Your task to perform on an android device: turn vacation reply on in the gmail app Image 0: 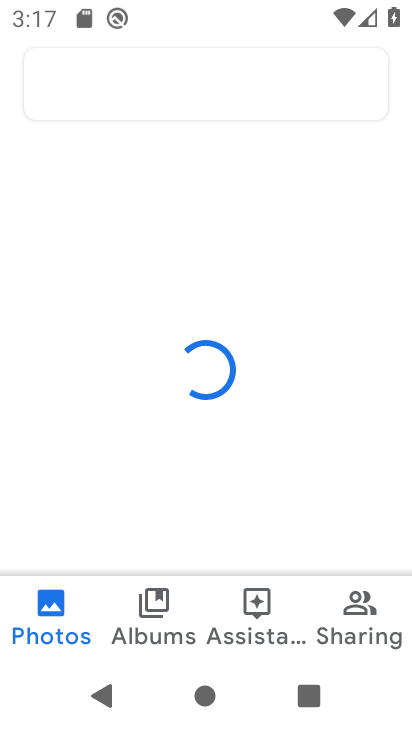
Step 0: press home button
Your task to perform on an android device: turn vacation reply on in the gmail app Image 1: 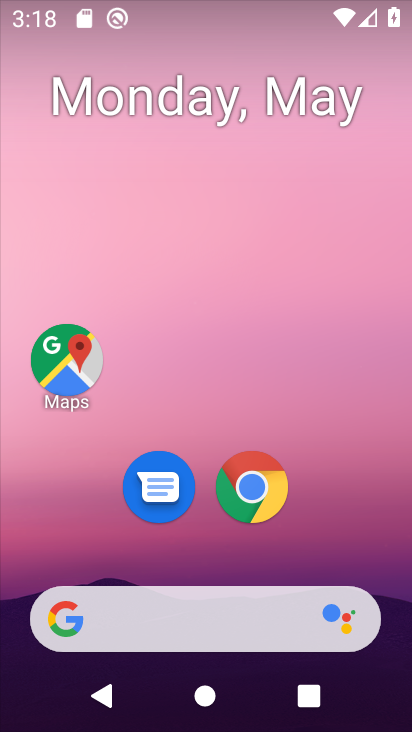
Step 1: drag from (85, 565) to (184, 70)
Your task to perform on an android device: turn vacation reply on in the gmail app Image 2: 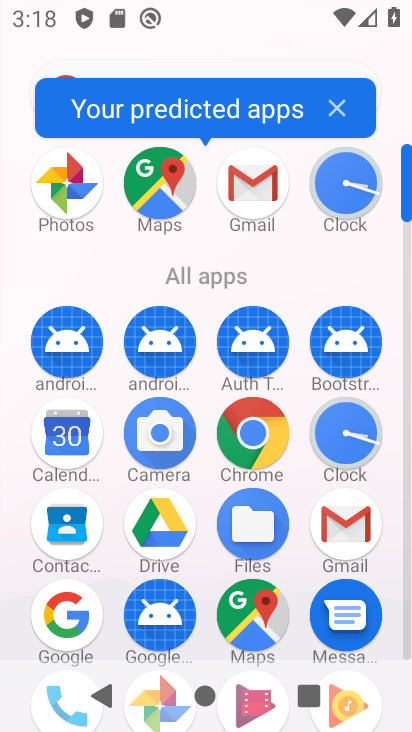
Step 2: click (337, 543)
Your task to perform on an android device: turn vacation reply on in the gmail app Image 3: 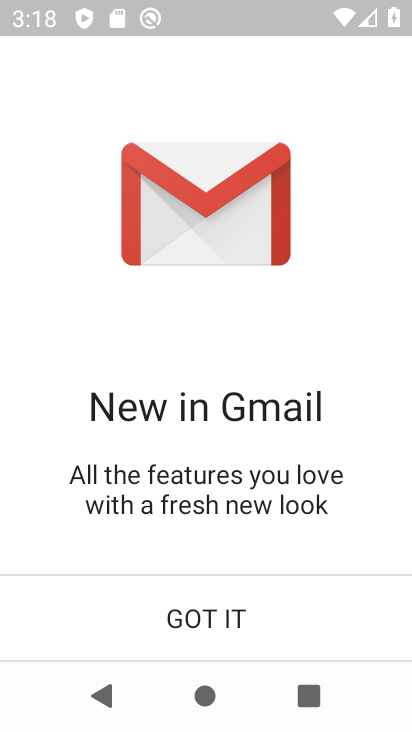
Step 3: click (253, 609)
Your task to perform on an android device: turn vacation reply on in the gmail app Image 4: 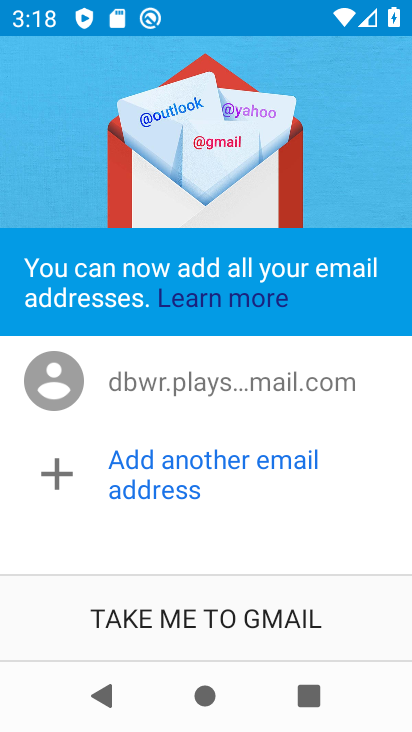
Step 4: click (312, 623)
Your task to perform on an android device: turn vacation reply on in the gmail app Image 5: 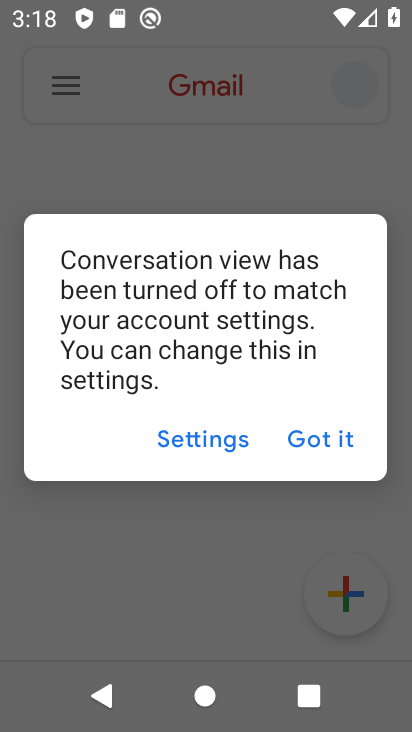
Step 5: click (339, 433)
Your task to perform on an android device: turn vacation reply on in the gmail app Image 6: 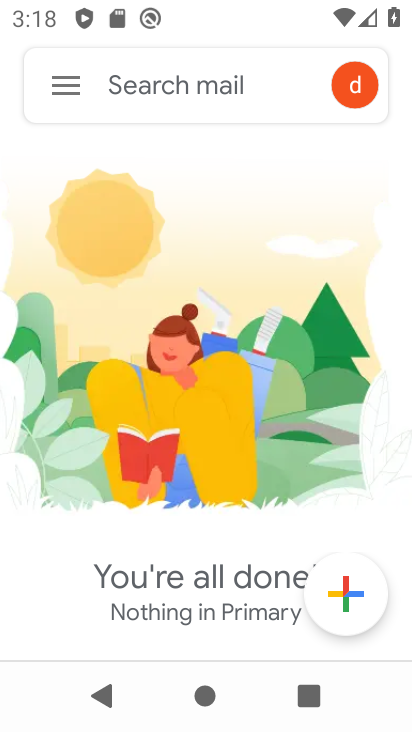
Step 6: click (87, 97)
Your task to perform on an android device: turn vacation reply on in the gmail app Image 7: 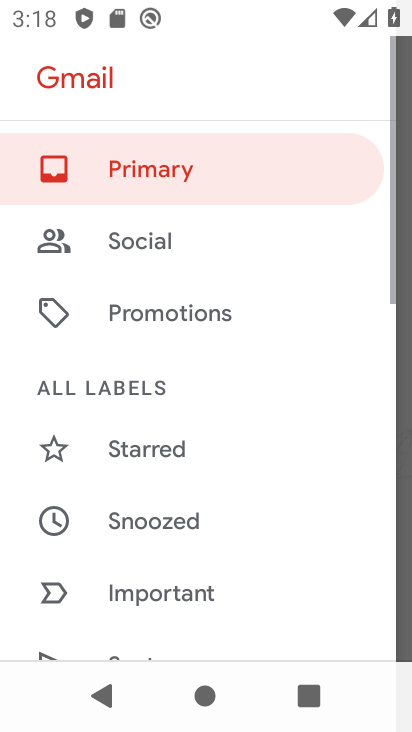
Step 7: drag from (158, 571) to (270, 76)
Your task to perform on an android device: turn vacation reply on in the gmail app Image 8: 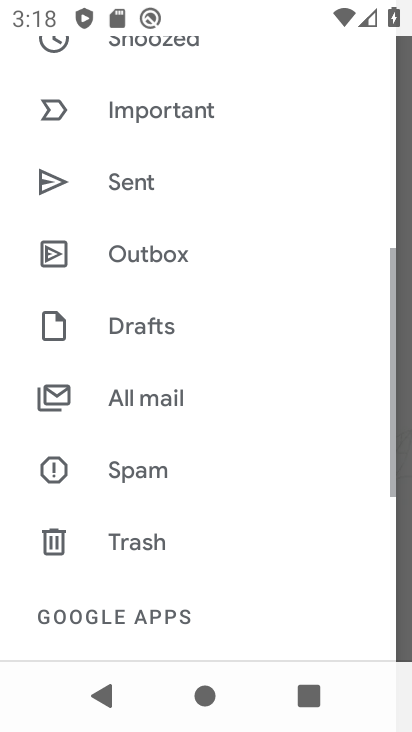
Step 8: drag from (236, 591) to (252, 303)
Your task to perform on an android device: turn vacation reply on in the gmail app Image 9: 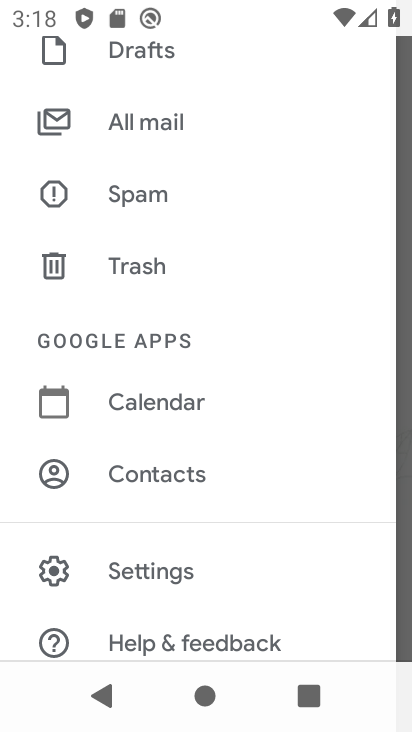
Step 9: click (220, 568)
Your task to perform on an android device: turn vacation reply on in the gmail app Image 10: 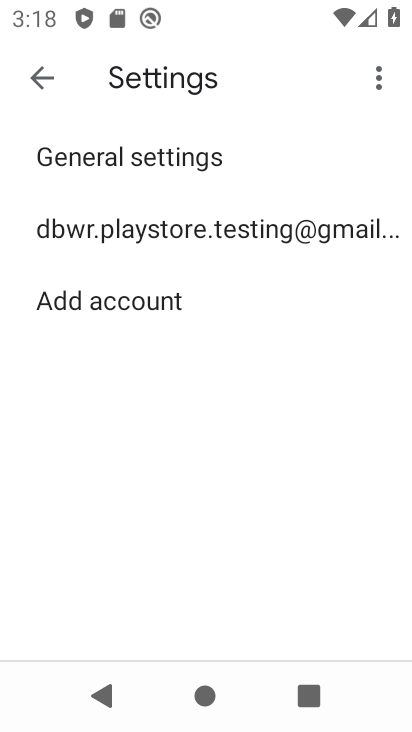
Step 10: click (272, 236)
Your task to perform on an android device: turn vacation reply on in the gmail app Image 11: 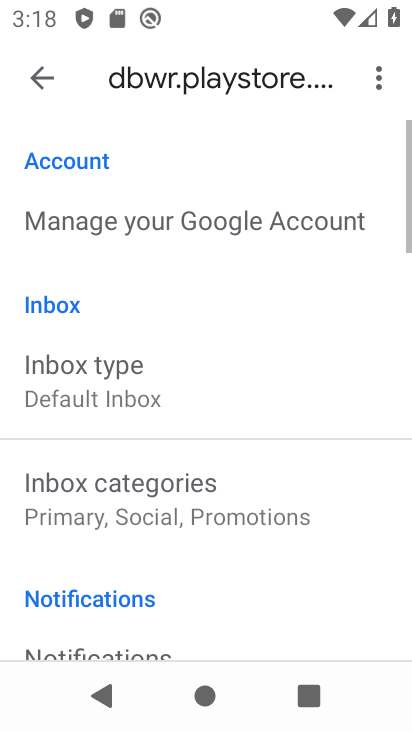
Step 11: drag from (165, 563) to (252, 120)
Your task to perform on an android device: turn vacation reply on in the gmail app Image 12: 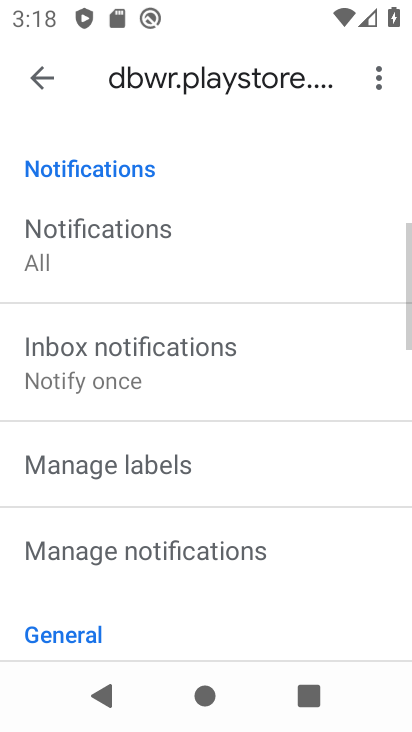
Step 12: drag from (216, 530) to (273, 195)
Your task to perform on an android device: turn vacation reply on in the gmail app Image 13: 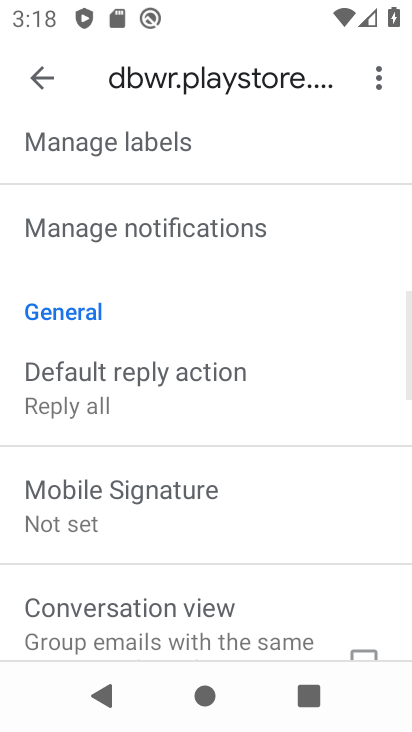
Step 13: drag from (207, 595) to (258, 262)
Your task to perform on an android device: turn vacation reply on in the gmail app Image 14: 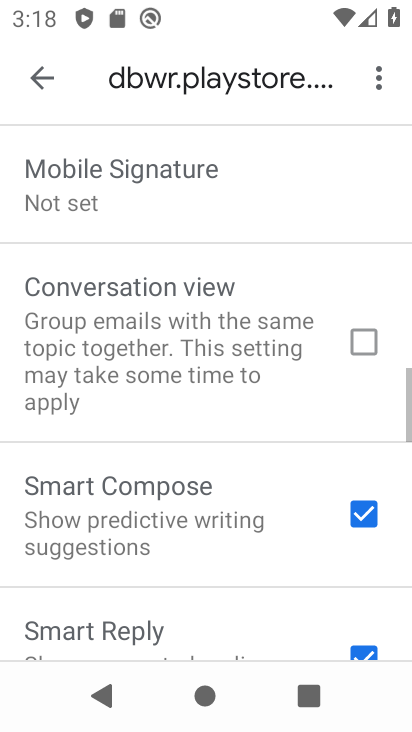
Step 14: drag from (218, 616) to (304, 206)
Your task to perform on an android device: turn vacation reply on in the gmail app Image 15: 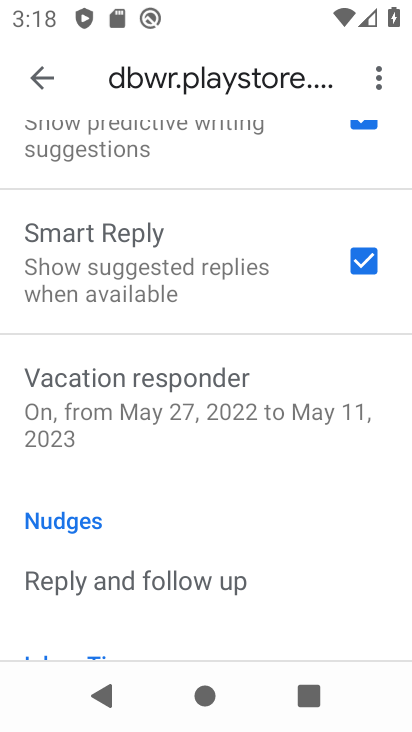
Step 15: click (242, 428)
Your task to perform on an android device: turn vacation reply on in the gmail app Image 16: 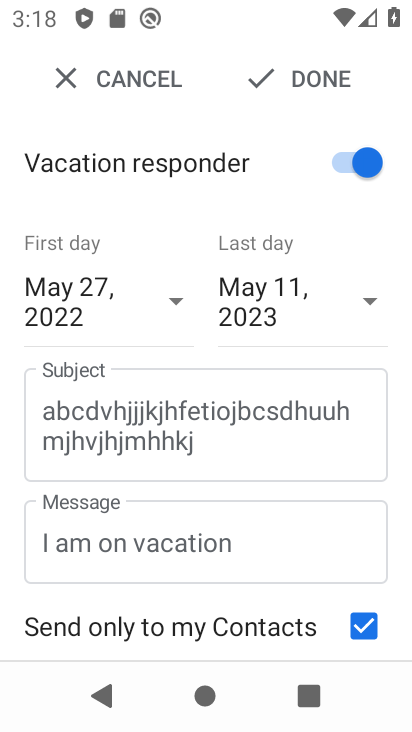
Step 16: task complete